Your task to perform on an android device: Open Wikipedia Image 0: 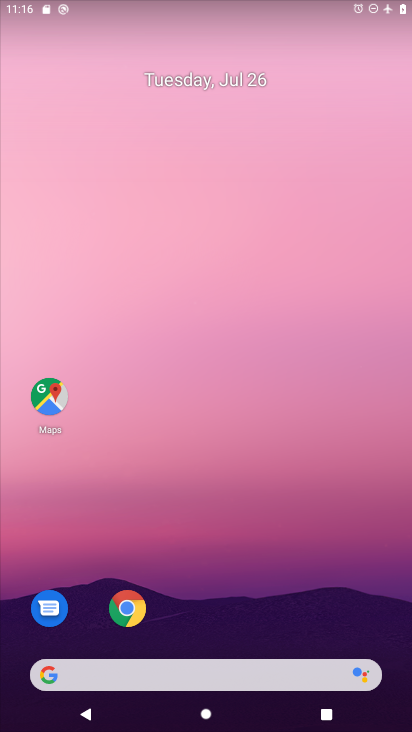
Step 0: drag from (306, 594) to (303, 59)
Your task to perform on an android device: Open Wikipedia Image 1: 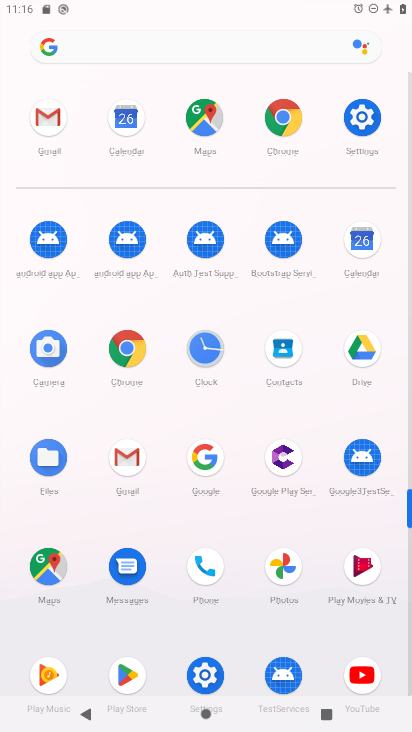
Step 1: click (282, 118)
Your task to perform on an android device: Open Wikipedia Image 2: 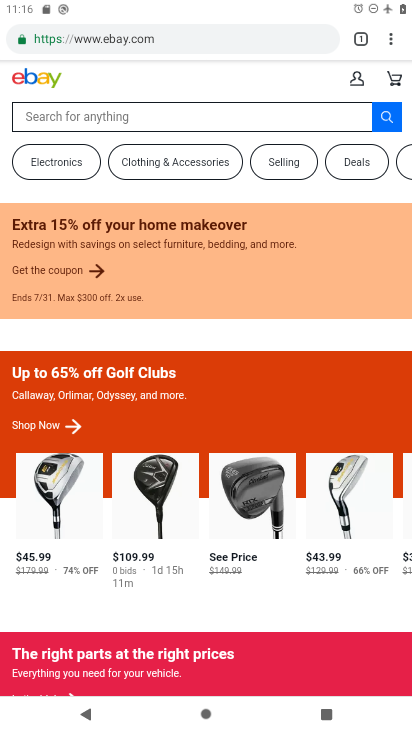
Step 2: click (201, 40)
Your task to perform on an android device: Open Wikipedia Image 3: 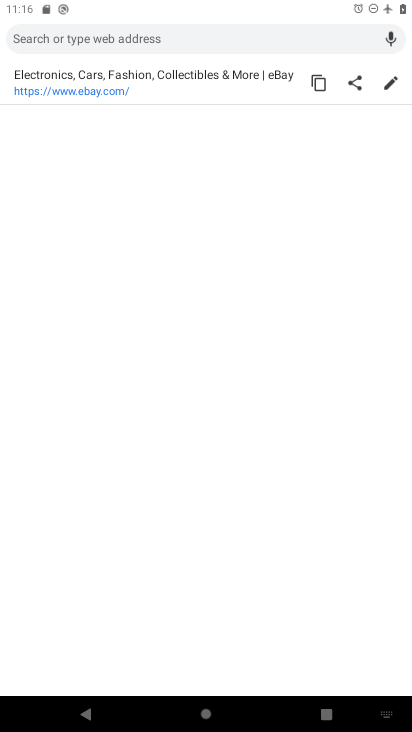
Step 3: type "wikipedia"
Your task to perform on an android device: Open Wikipedia Image 4: 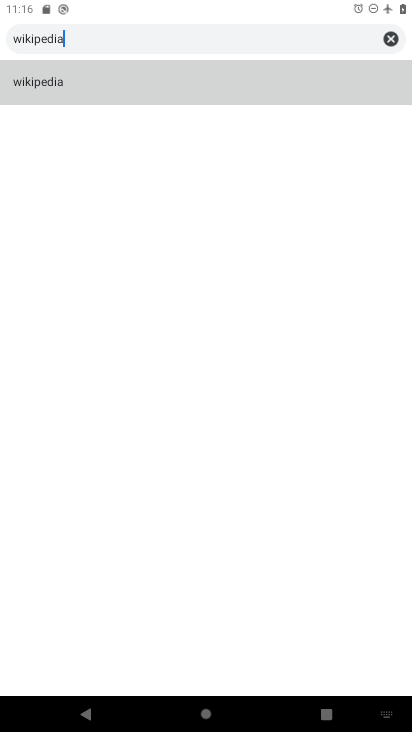
Step 4: click (37, 76)
Your task to perform on an android device: Open Wikipedia Image 5: 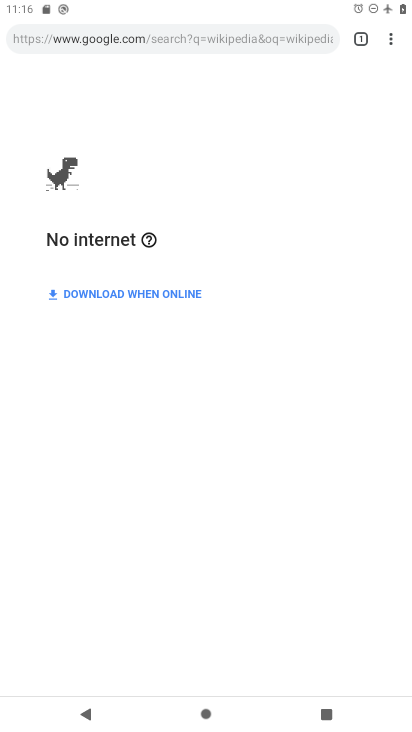
Step 5: task complete